Your task to perform on an android device: change the clock display to digital Image 0: 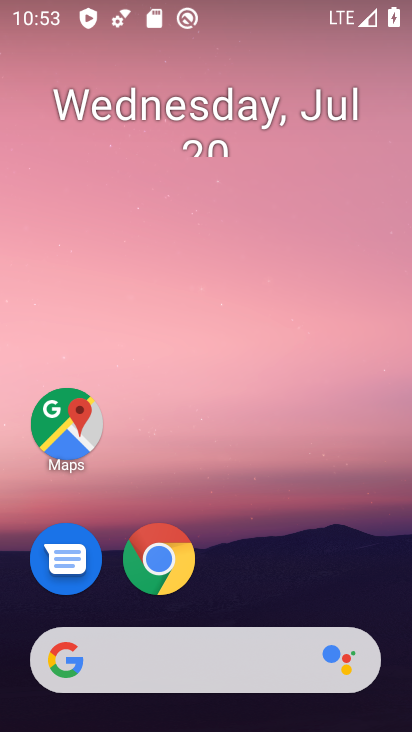
Step 0: drag from (279, 624) to (359, 132)
Your task to perform on an android device: change the clock display to digital Image 1: 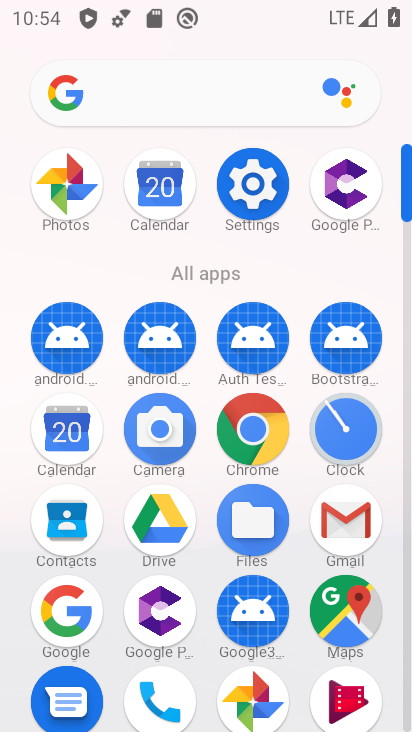
Step 1: click (352, 442)
Your task to perform on an android device: change the clock display to digital Image 2: 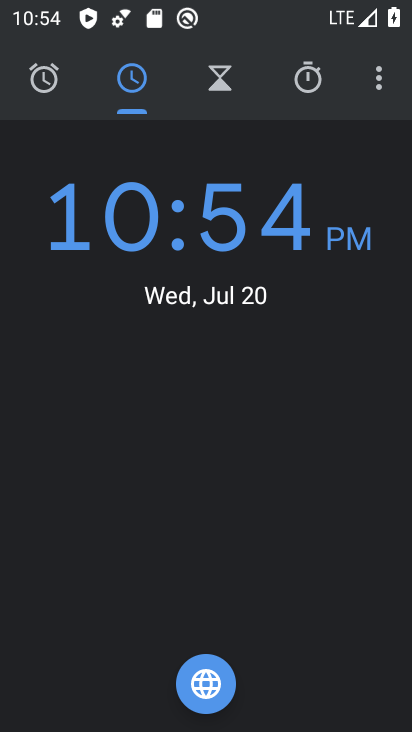
Step 2: click (385, 92)
Your task to perform on an android device: change the clock display to digital Image 3: 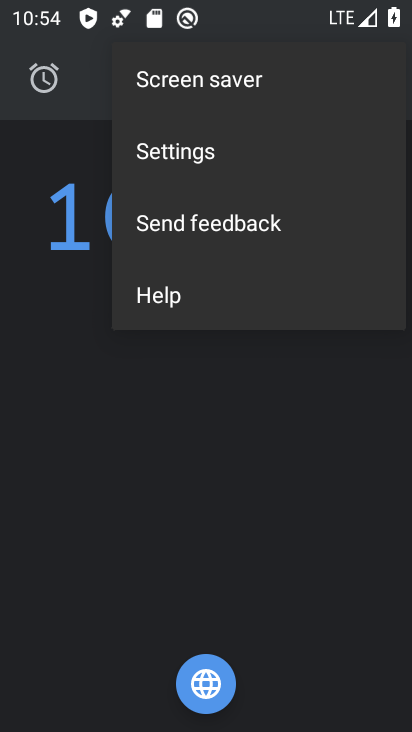
Step 3: click (191, 165)
Your task to perform on an android device: change the clock display to digital Image 4: 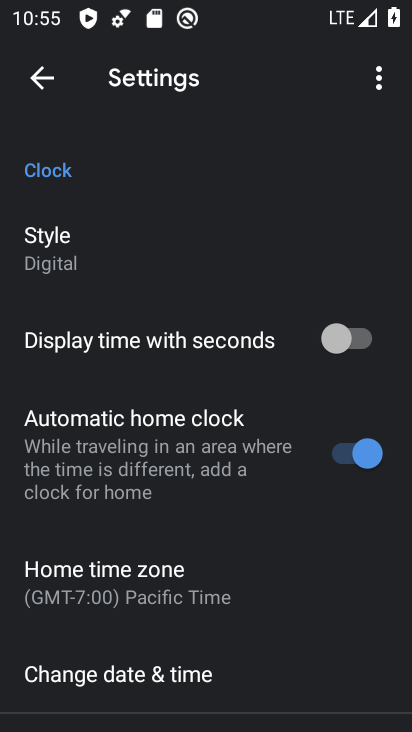
Step 4: task complete